Your task to perform on an android device: Clear the shopping cart on ebay.com. Add macbook air to the cart on ebay.com, then select checkout. Image 0: 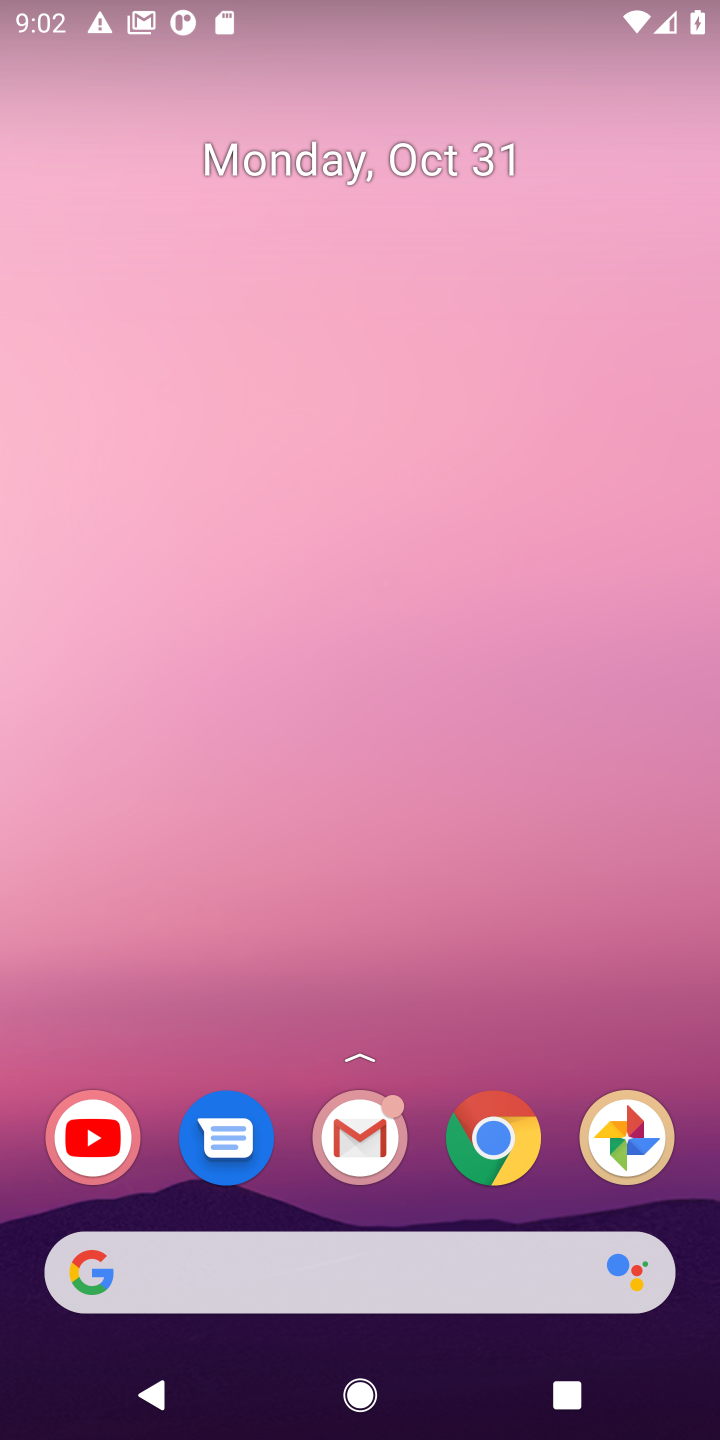
Step 0: drag from (414, 1330) to (354, 285)
Your task to perform on an android device: Clear the shopping cart on ebay.com. Add macbook air to the cart on ebay.com, then select checkout. Image 1: 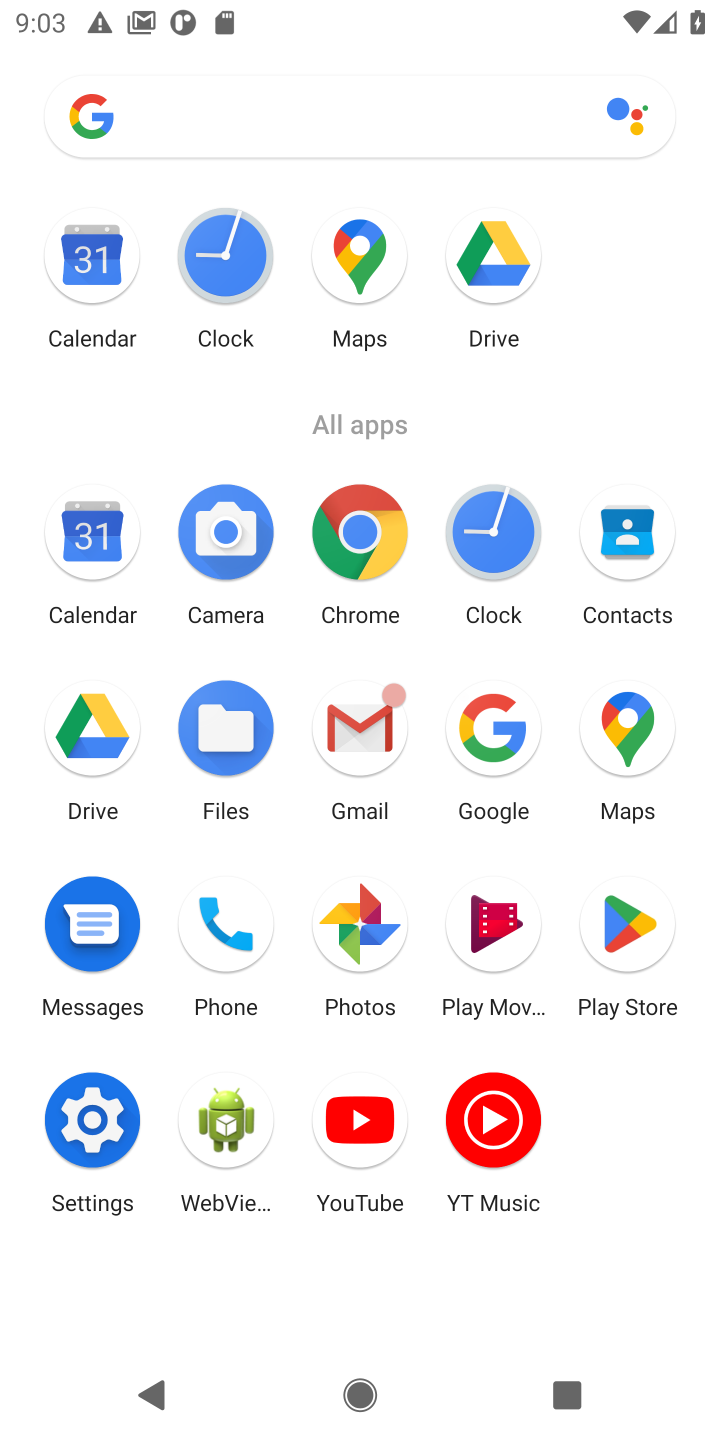
Step 1: click (358, 513)
Your task to perform on an android device: Clear the shopping cart on ebay.com. Add macbook air to the cart on ebay.com, then select checkout. Image 2: 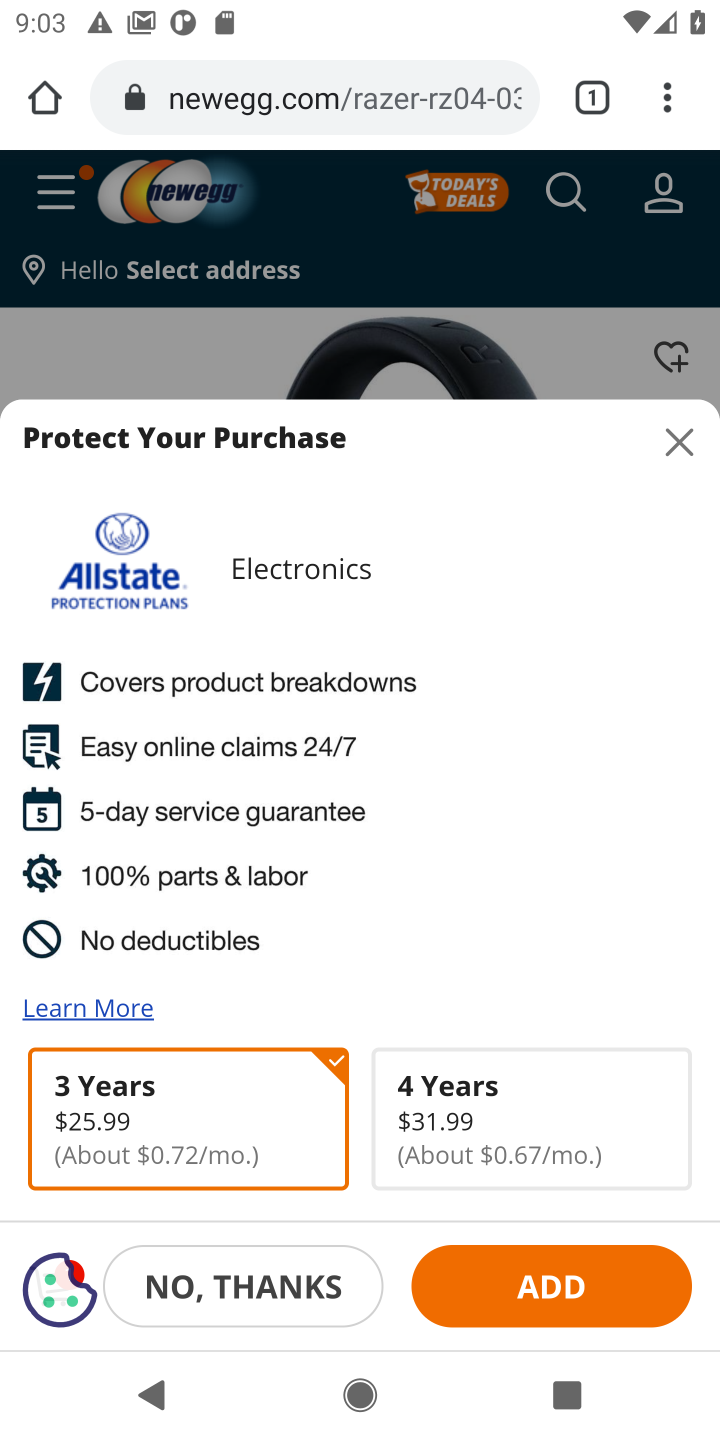
Step 2: click (678, 429)
Your task to perform on an android device: Clear the shopping cart on ebay.com. Add macbook air to the cart on ebay.com, then select checkout. Image 3: 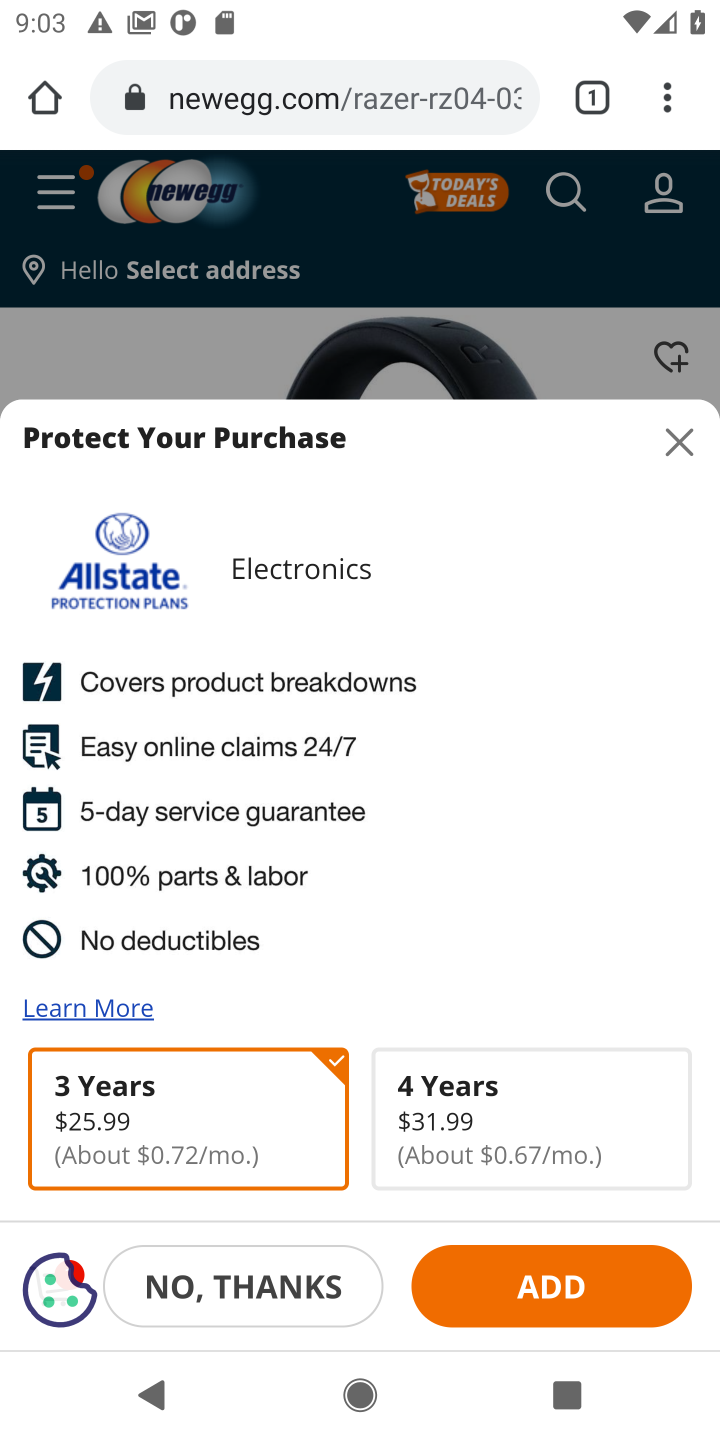
Step 3: click (668, 437)
Your task to perform on an android device: Clear the shopping cart on ebay.com. Add macbook air to the cart on ebay.com, then select checkout. Image 4: 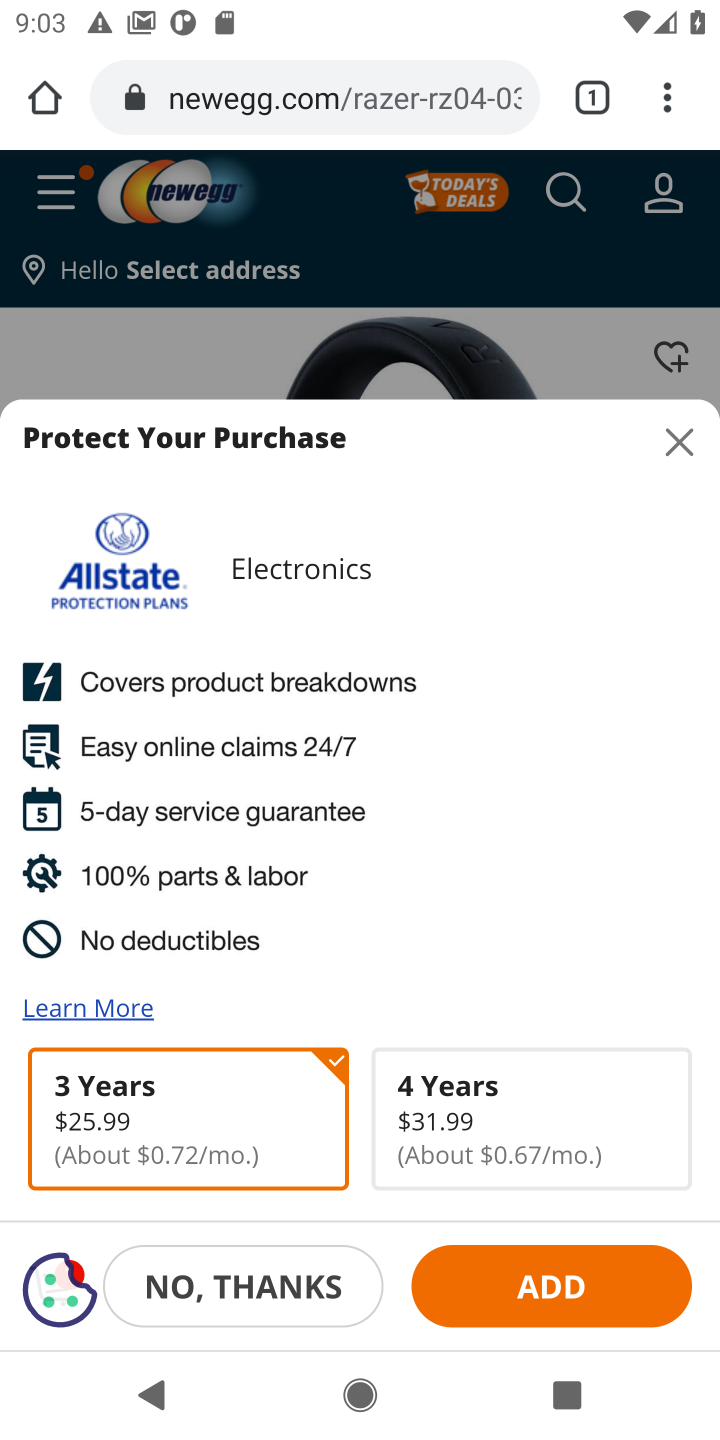
Step 4: click (289, 86)
Your task to perform on an android device: Clear the shopping cart on ebay.com. Add macbook air to the cart on ebay.com, then select checkout. Image 5: 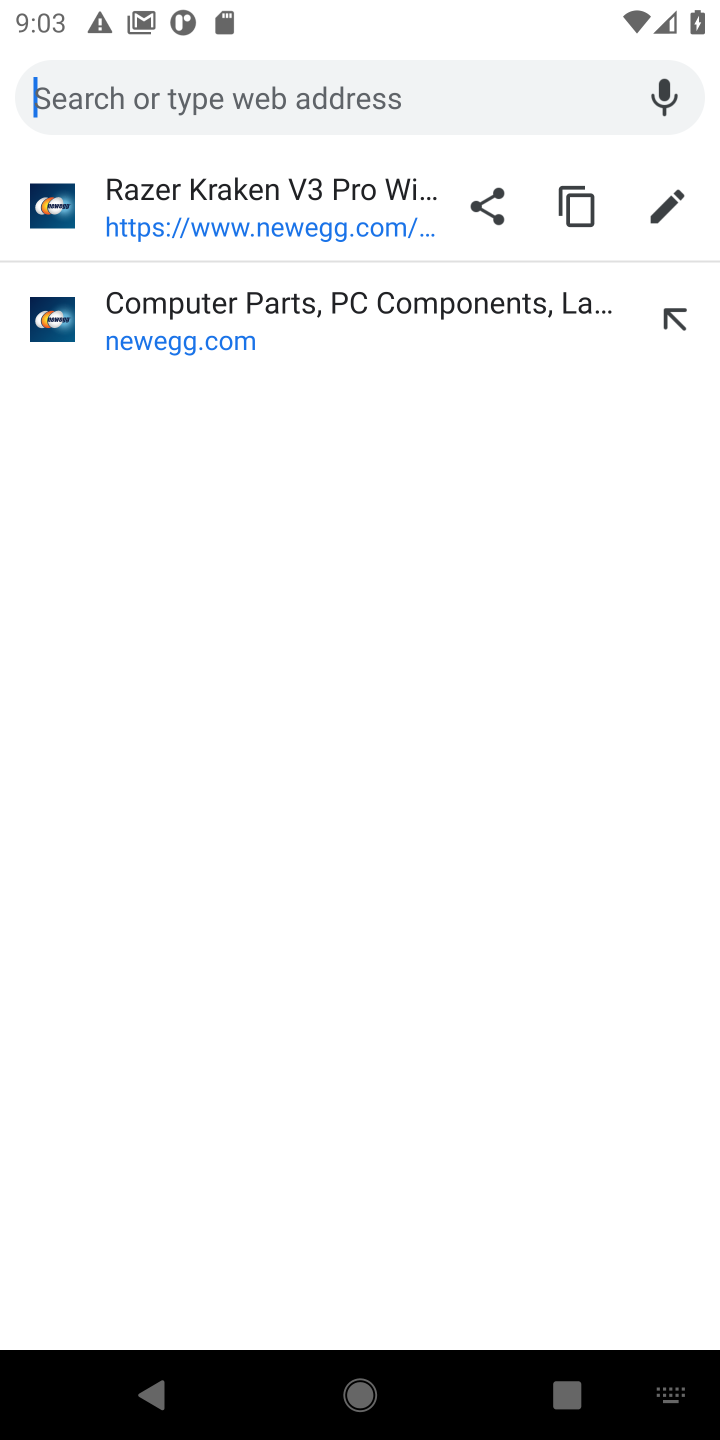
Step 5: type "ebay.com"
Your task to perform on an android device: Clear the shopping cart on ebay.com. Add macbook air to the cart on ebay.com, then select checkout. Image 6: 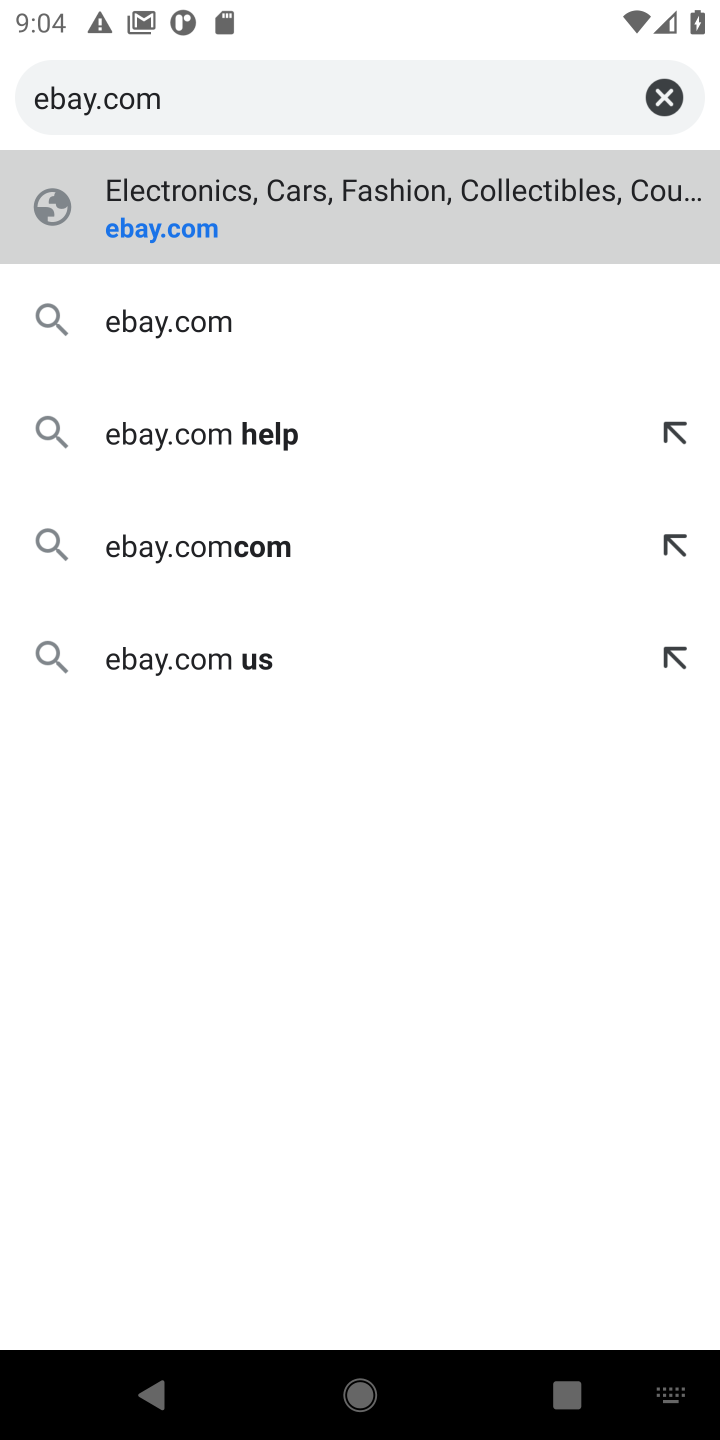
Step 6: click (148, 225)
Your task to perform on an android device: Clear the shopping cart on ebay.com. Add macbook air to the cart on ebay.com, then select checkout. Image 7: 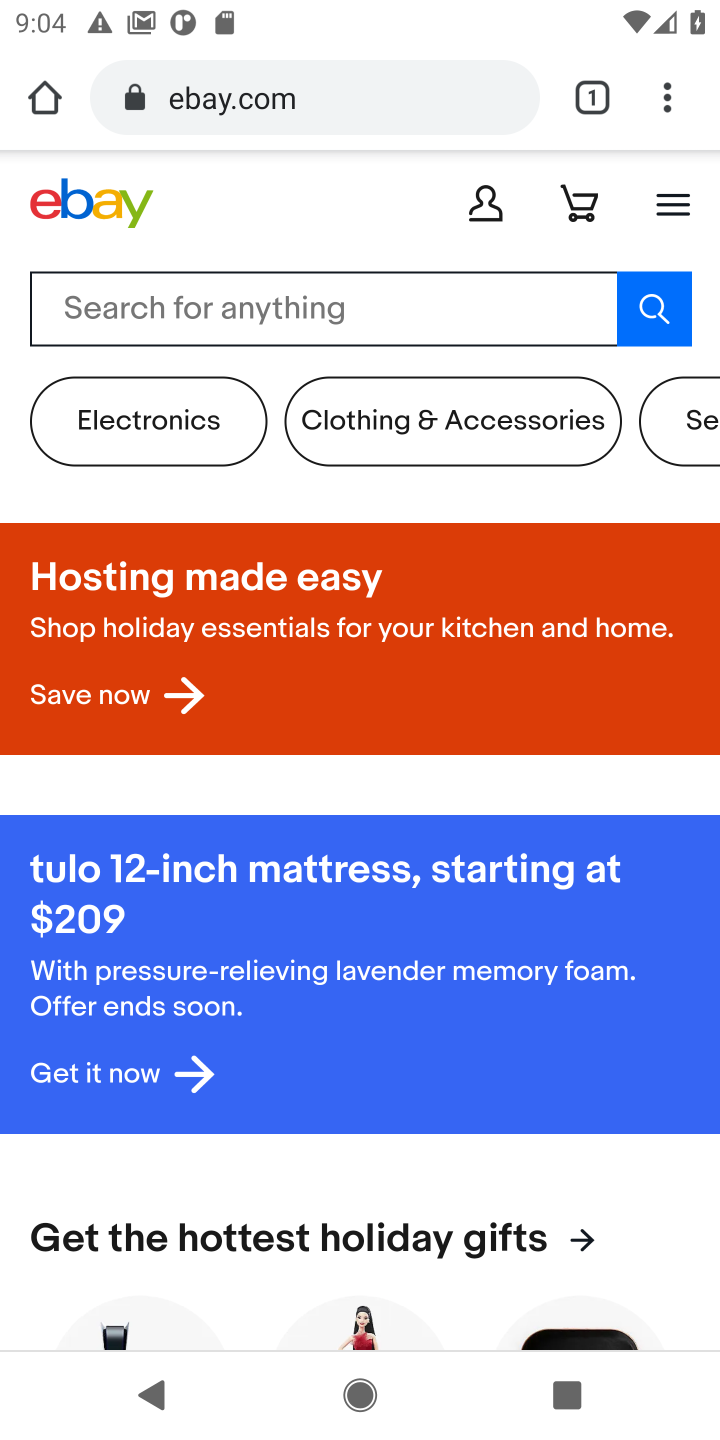
Step 7: click (161, 314)
Your task to perform on an android device: Clear the shopping cart on ebay.com. Add macbook air to the cart on ebay.com, then select checkout. Image 8: 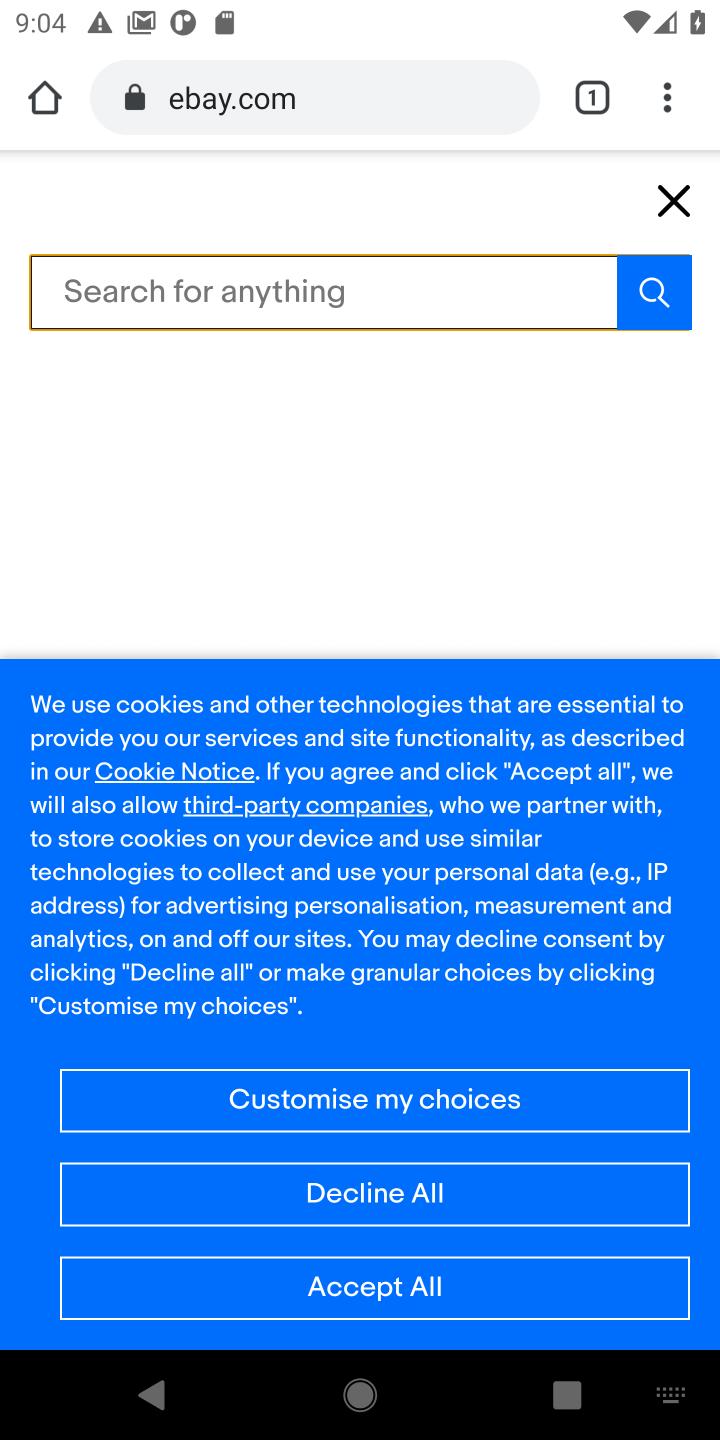
Step 8: click (662, 200)
Your task to perform on an android device: Clear the shopping cart on ebay.com. Add macbook air to the cart on ebay.com, then select checkout. Image 9: 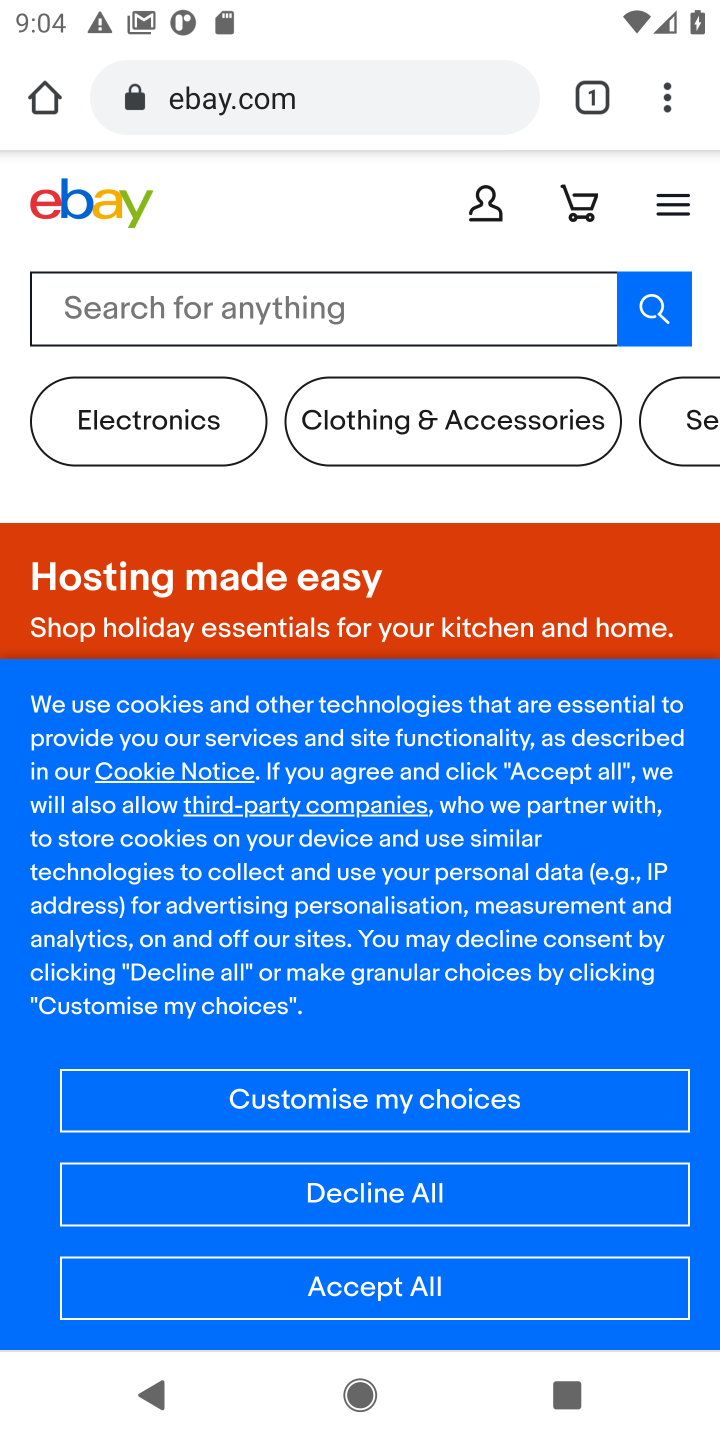
Step 9: click (581, 202)
Your task to perform on an android device: Clear the shopping cart on ebay.com. Add macbook air to the cart on ebay.com, then select checkout. Image 10: 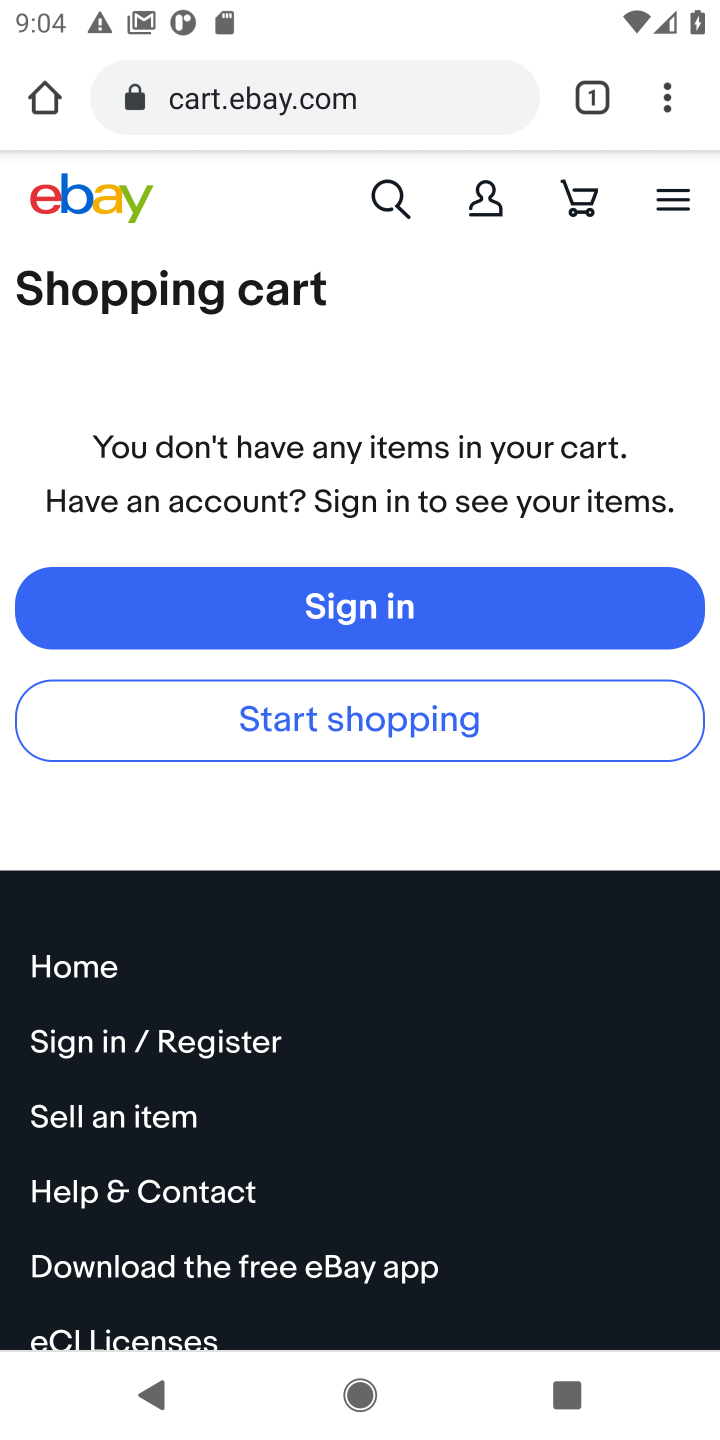
Step 10: press back button
Your task to perform on an android device: Clear the shopping cart on ebay.com. Add macbook air to the cart on ebay.com, then select checkout. Image 11: 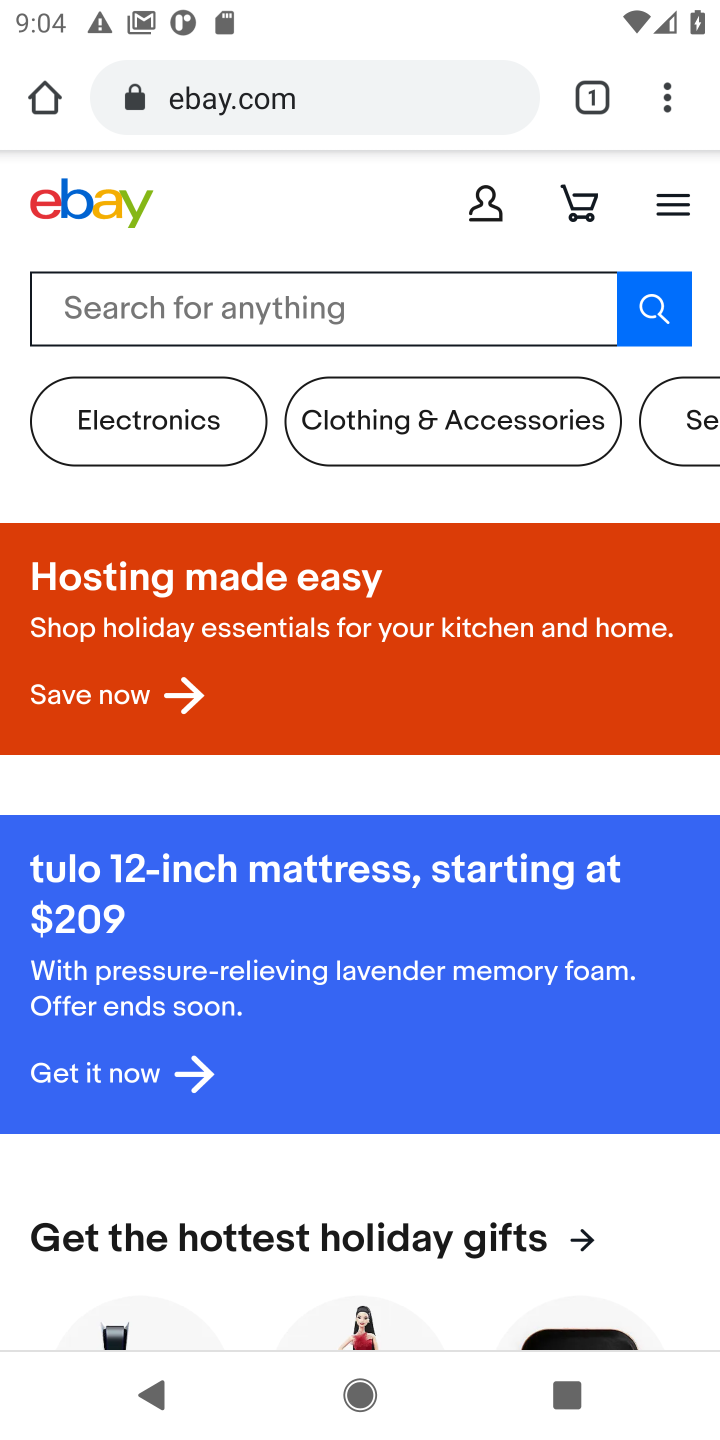
Step 11: click (246, 291)
Your task to perform on an android device: Clear the shopping cart on ebay.com. Add macbook air to the cart on ebay.com, then select checkout. Image 12: 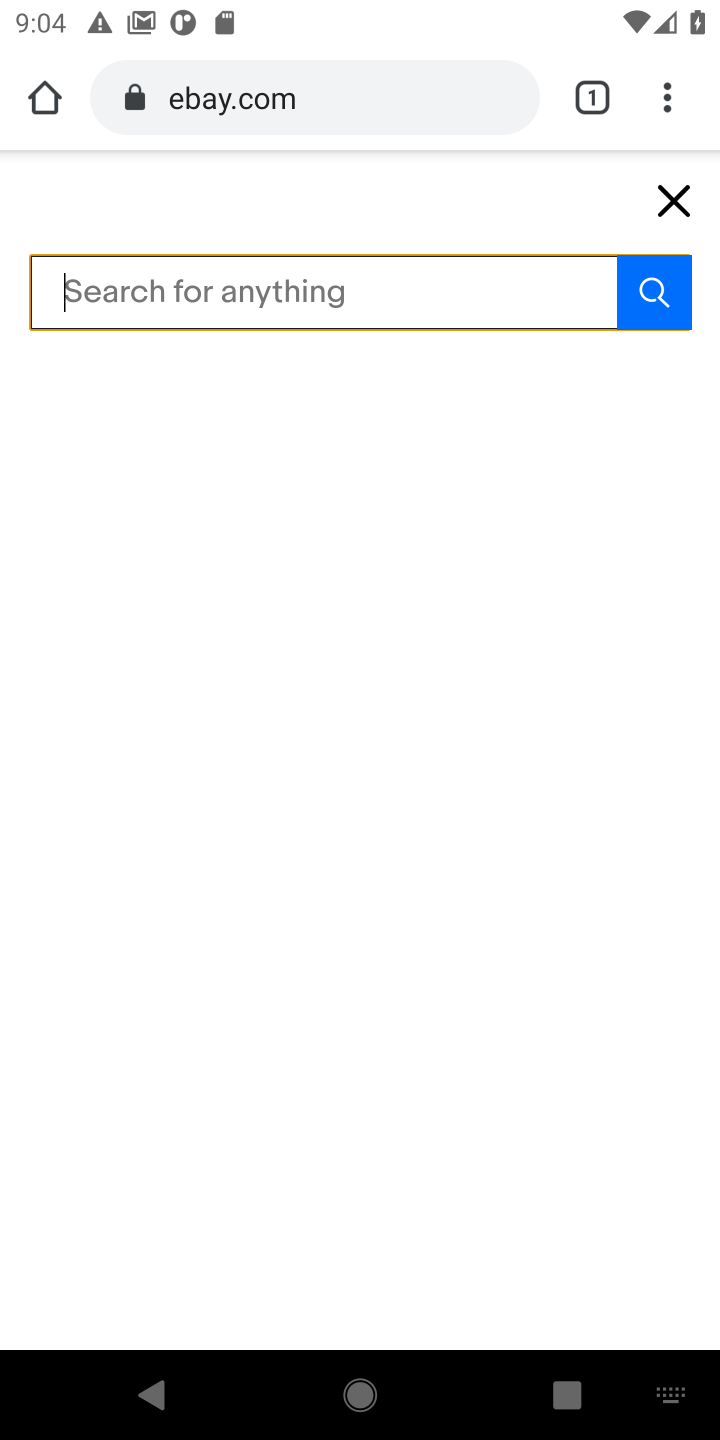
Step 12: type "macbook air"
Your task to perform on an android device: Clear the shopping cart on ebay.com. Add macbook air to the cart on ebay.com, then select checkout. Image 13: 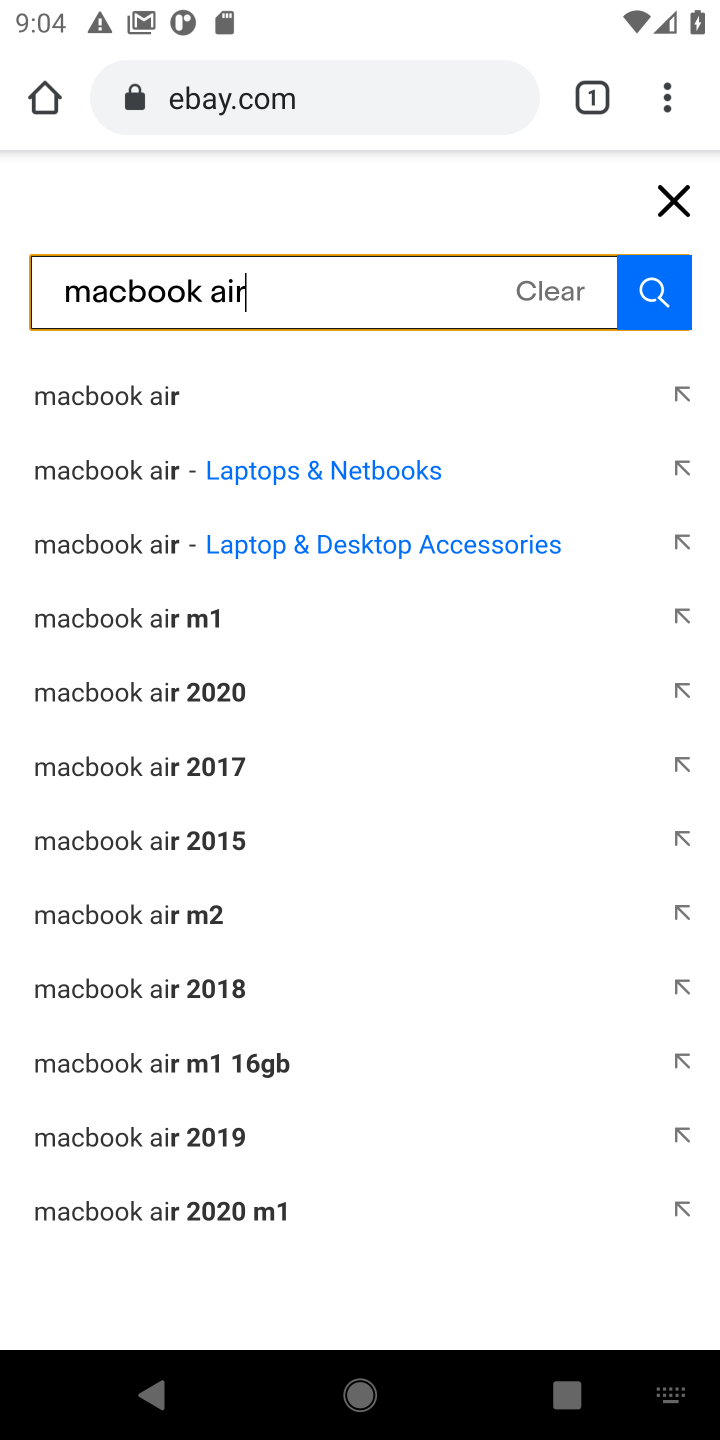
Step 13: click (87, 395)
Your task to perform on an android device: Clear the shopping cart on ebay.com. Add macbook air to the cart on ebay.com, then select checkout. Image 14: 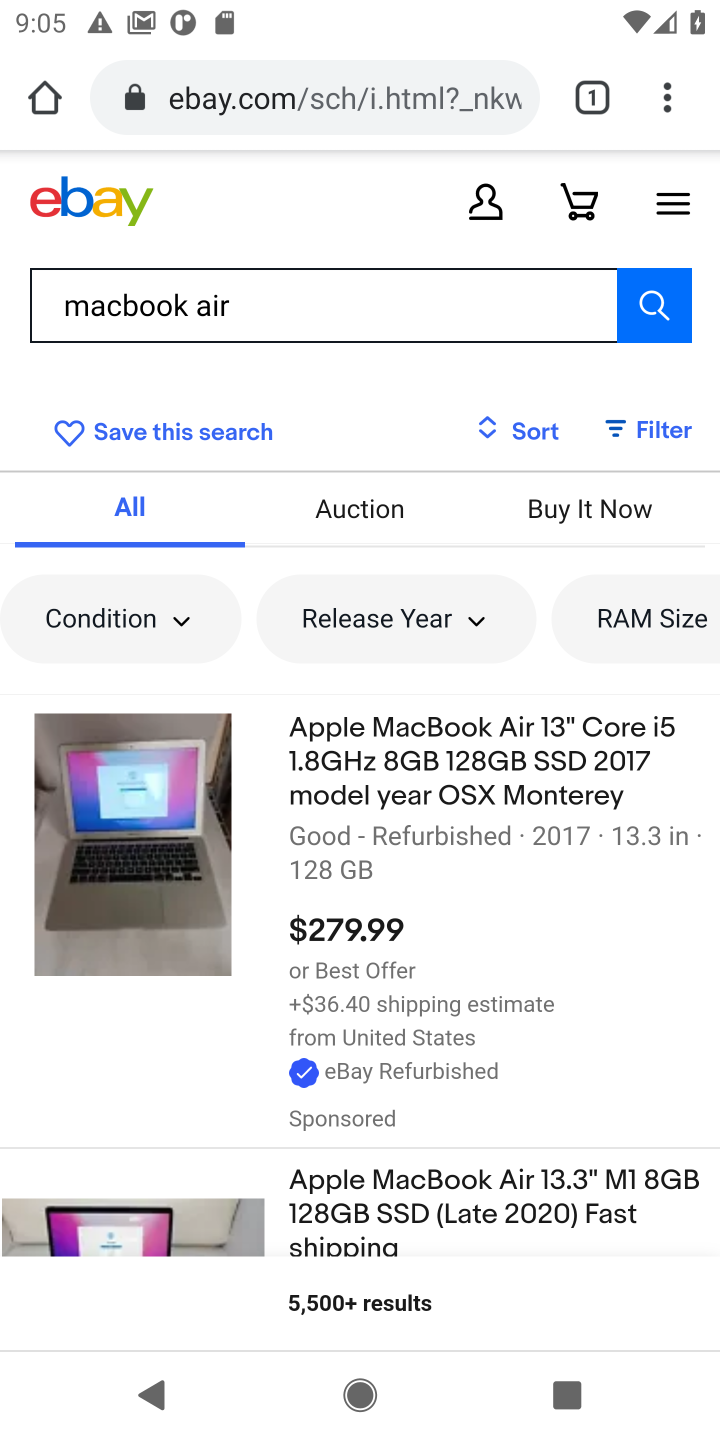
Step 14: click (137, 788)
Your task to perform on an android device: Clear the shopping cart on ebay.com. Add macbook air to the cart on ebay.com, then select checkout. Image 15: 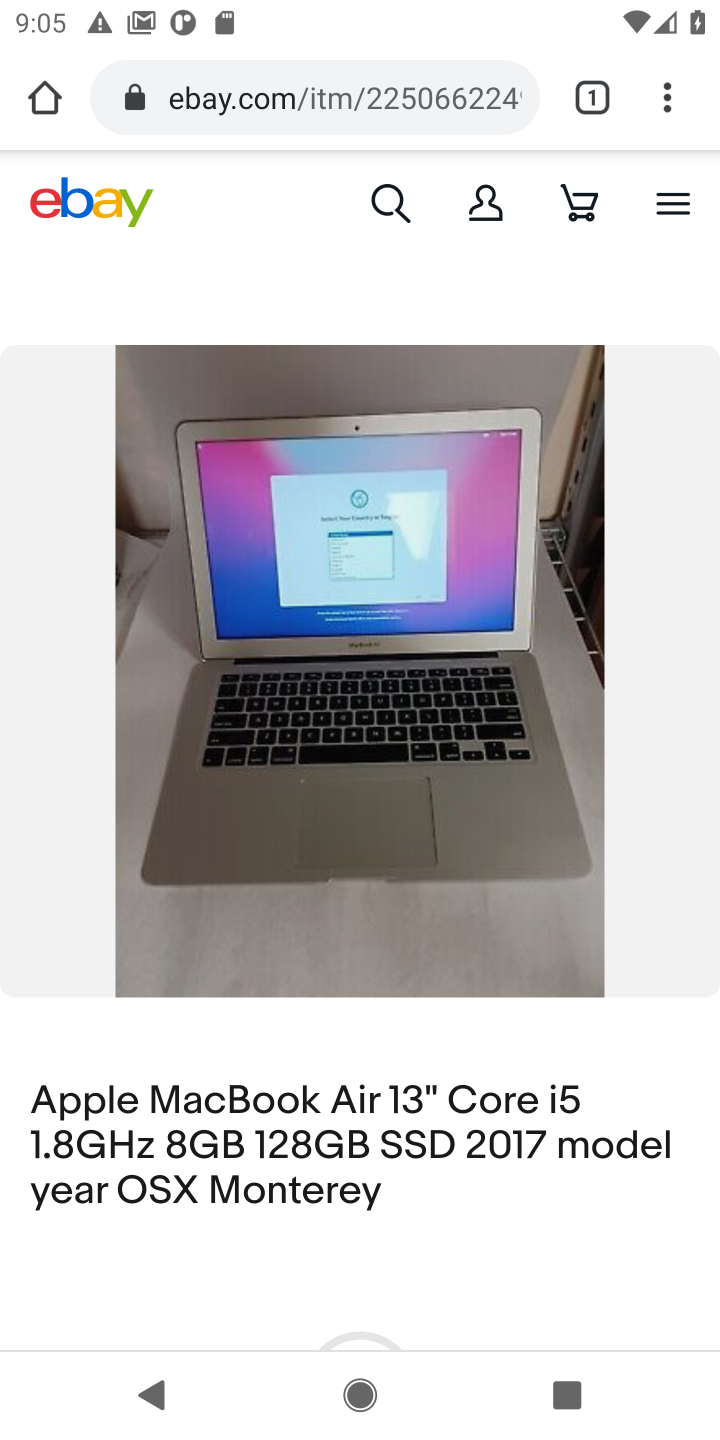
Step 15: drag from (378, 1093) to (381, 232)
Your task to perform on an android device: Clear the shopping cart on ebay.com. Add macbook air to the cart on ebay.com, then select checkout. Image 16: 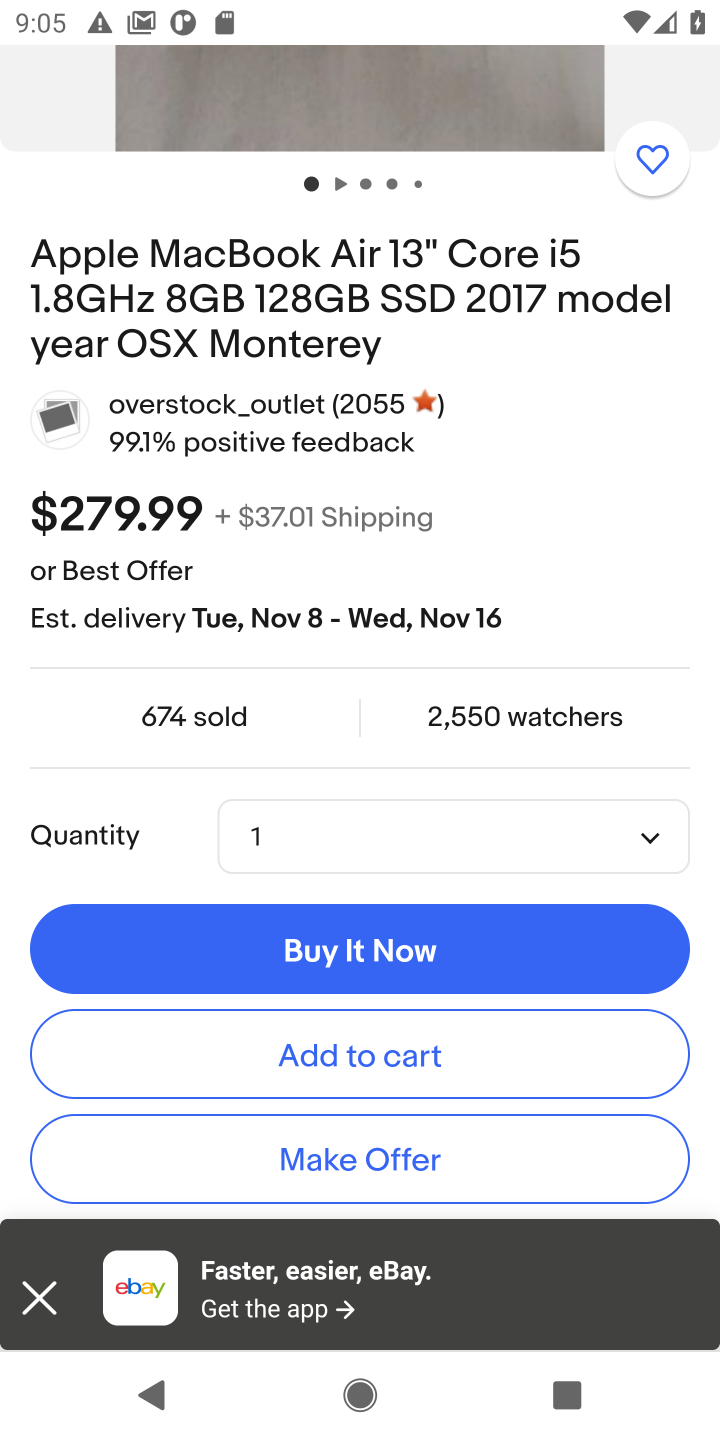
Step 16: click (304, 1047)
Your task to perform on an android device: Clear the shopping cart on ebay.com. Add macbook air to the cart on ebay.com, then select checkout. Image 17: 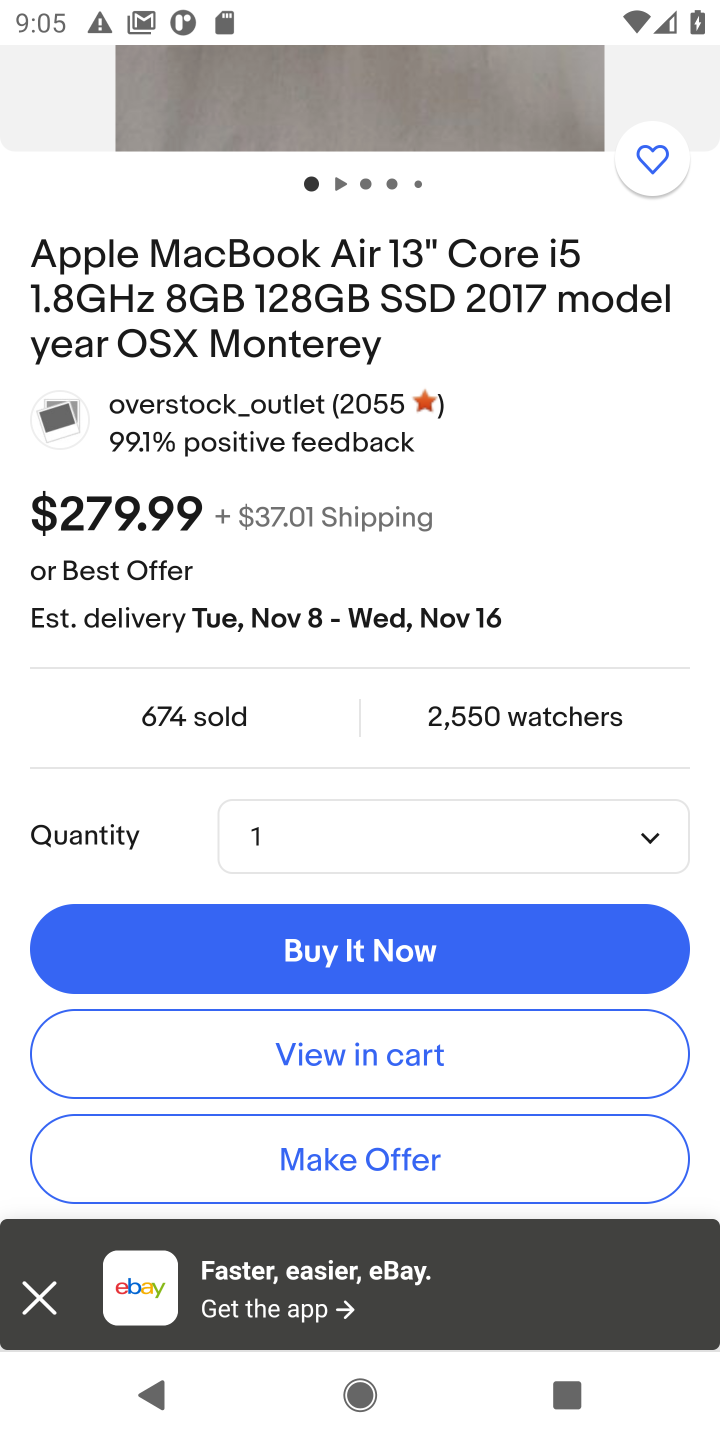
Step 17: task complete